Your task to perform on an android device: see sites visited before in the chrome app Image 0: 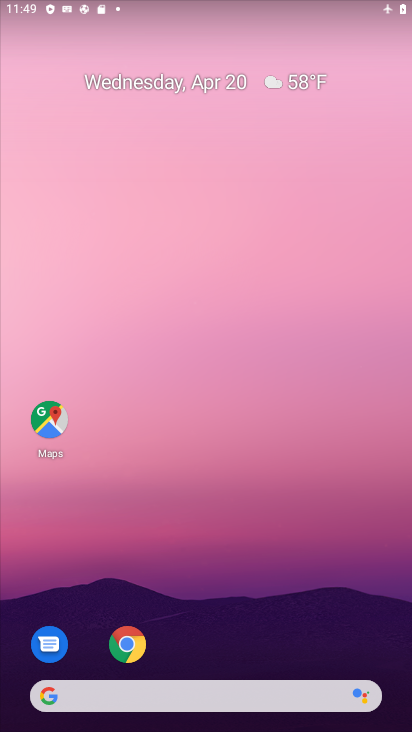
Step 0: click (129, 648)
Your task to perform on an android device: see sites visited before in the chrome app Image 1: 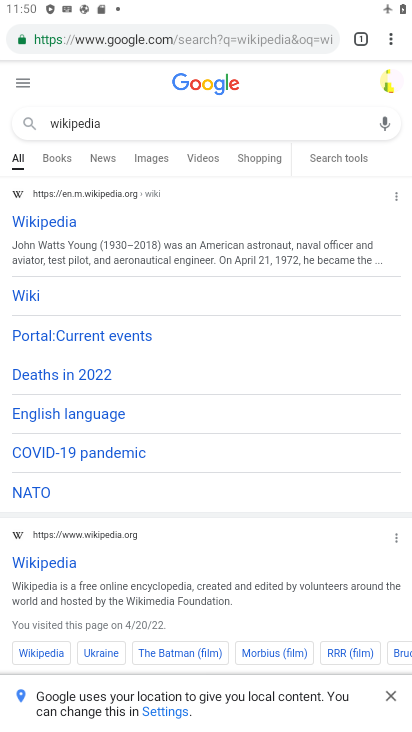
Step 1: click (387, 42)
Your task to perform on an android device: see sites visited before in the chrome app Image 2: 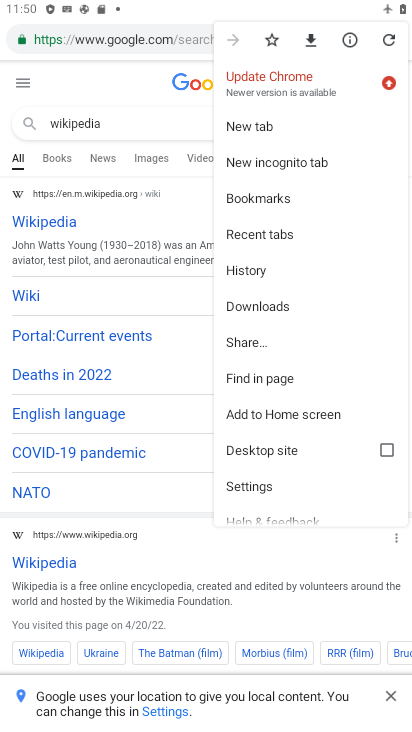
Step 2: click (256, 276)
Your task to perform on an android device: see sites visited before in the chrome app Image 3: 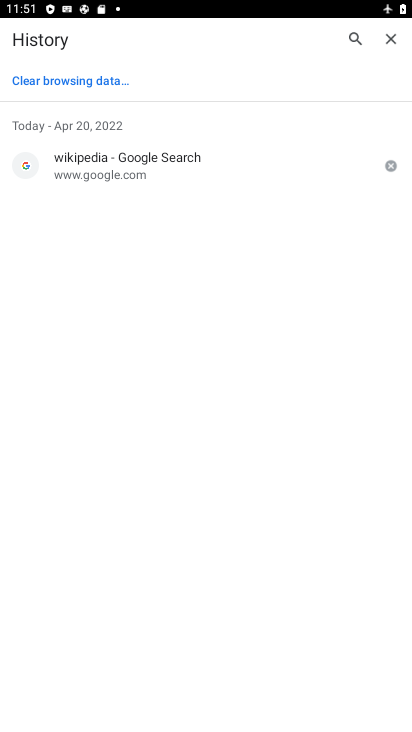
Step 3: task complete